Your task to perform on an android device: When is my next meeting? Image 0: 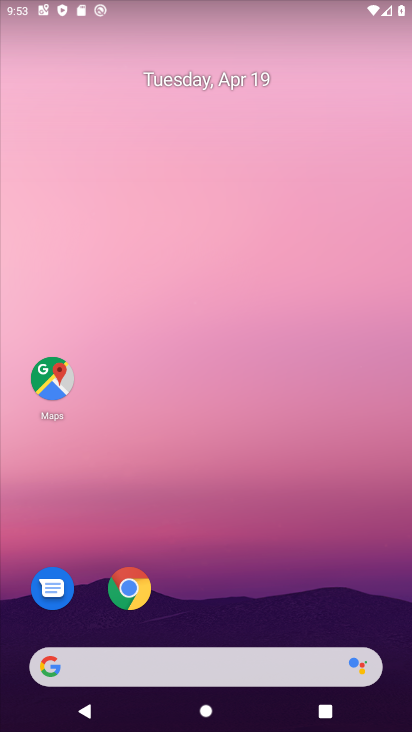
Step 0: drag from (117, 622) to (309, 118)
Your task to perform on an android device: When is my next meeting? Image 1: 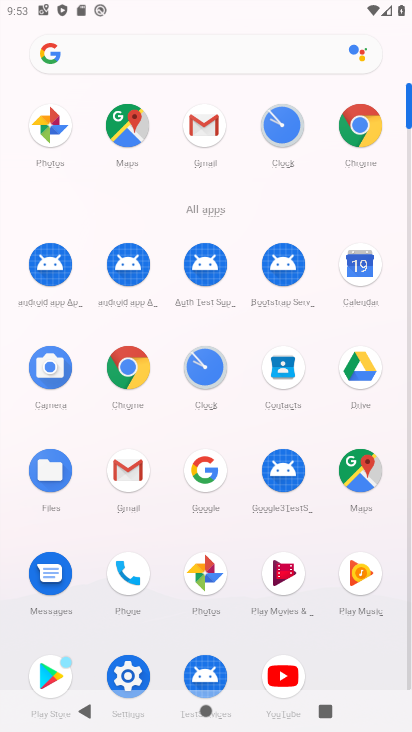
Step 1: click (365, 268)
Your task to perform on an android device: When is my next meeting? Image 2: 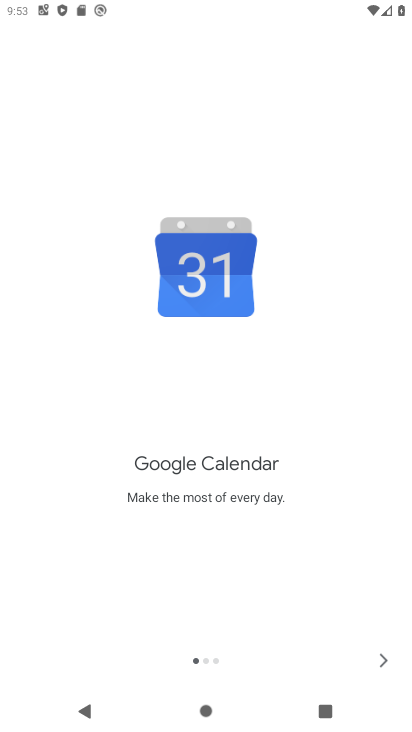
Step 2: click (387, 657)
Your task to perform on an android device: When is my next meeting? Image 3: 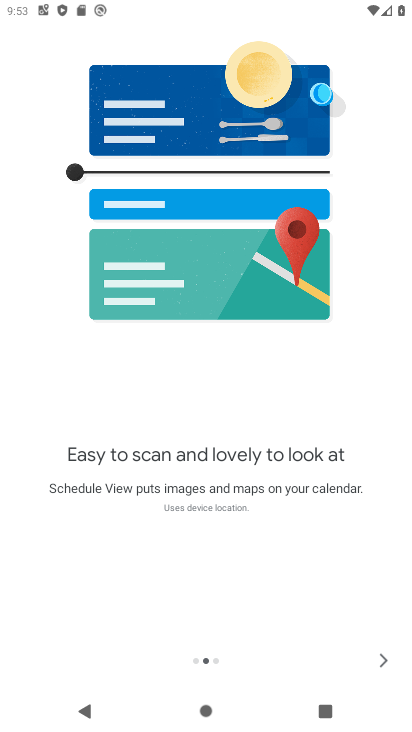
Step 3: click (387, 657)
Your task to perform on an android device: When is my next meeting? Image 4: 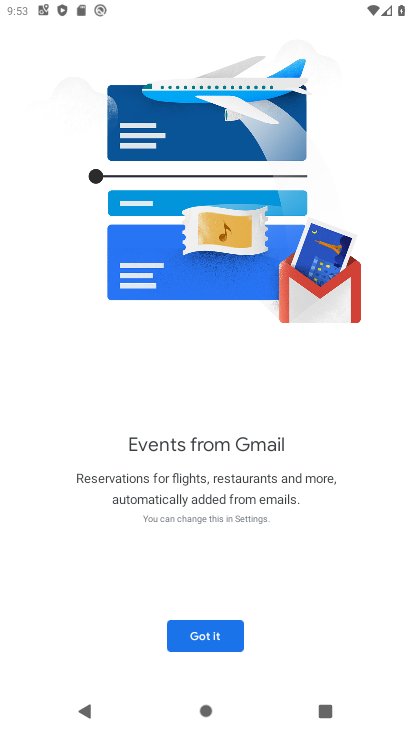
Step 4: click (194, 639)
Your task to perform on an android device: When is my next meeting? Image 5: 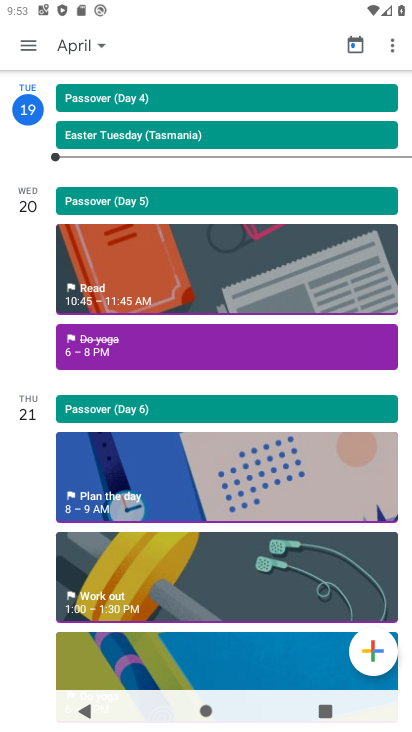
Step 5: click (93, 49)
Your task to perform on an android device: When is my next meeting? Image 6: 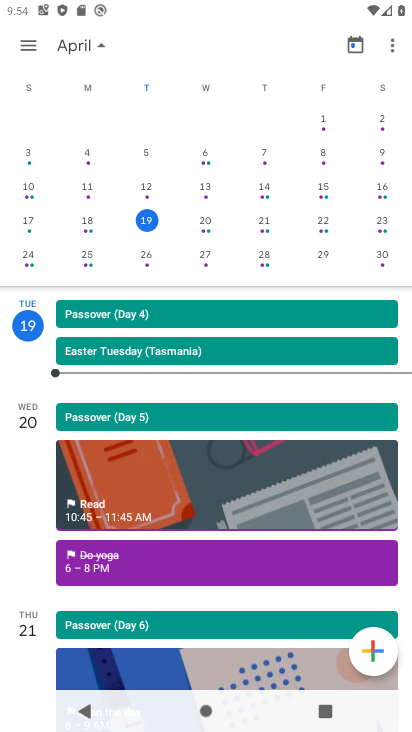
Step 6: drag from (391, 238) to (75, 229)
Your task to perform on an android device: When is my next meeting? Image 7: 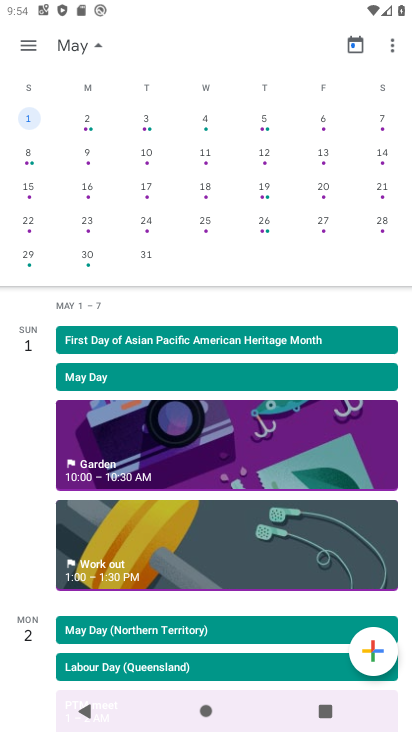
Step 7: click (91, 130)
Your task to perform on an android device: When is my next meeting? Image 8: 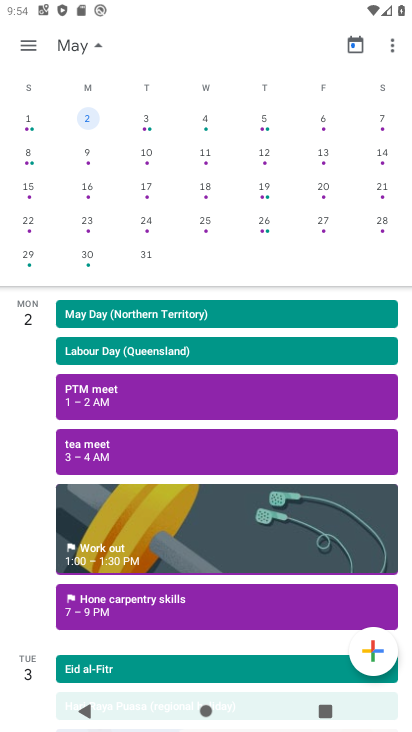
Step 8: click (146, 131)
Your task to perform on an android device: When is my next meeting? Image 9: 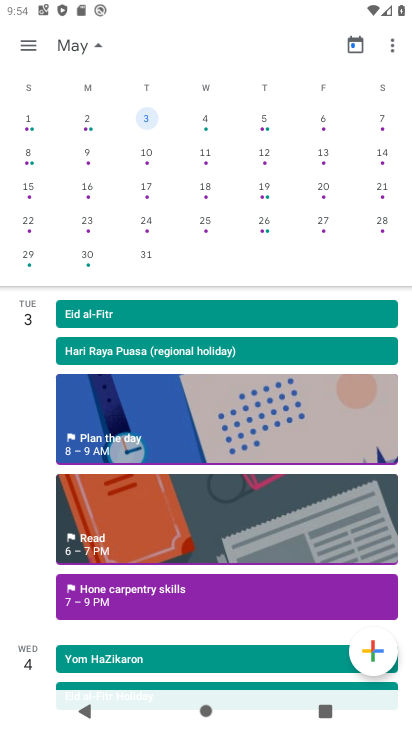
Step 9: task complete